Your task to perform on an android device: uninstall "Facebook Messenger" Image 0: 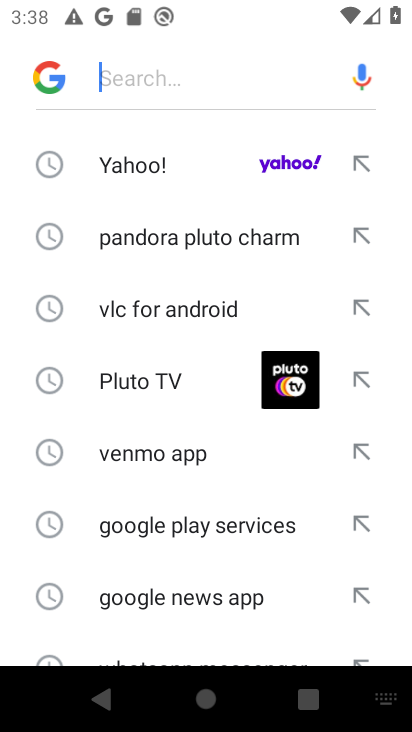
Step 0: type "facebook.com"
Your task to perform on an android device: uninstall "Facebook Messenger" Image 1: 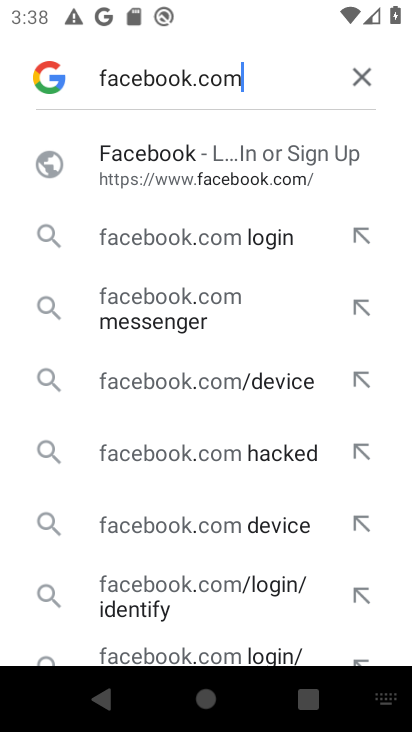
Step 1: click (237, 168)
Your task to perform on an android device: uninstall "Facebook Messenger" Image 2: 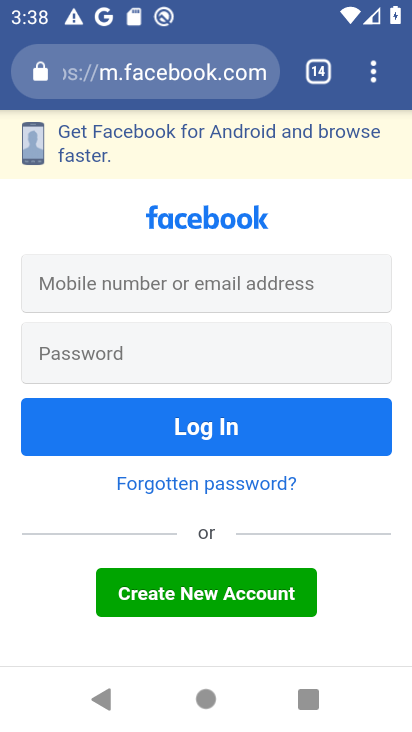
Step 2: task complete